Your task to perform on an android device: Go to calendar. Show me events next week Image 0: 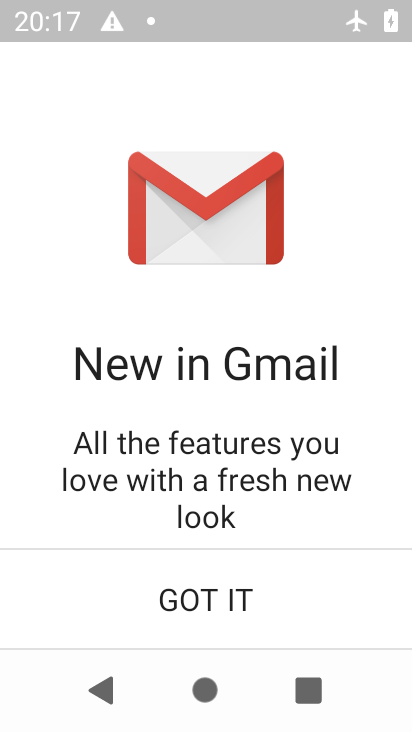
Step 0: press home button
Your task to perform on an android device: Go to calendar. Show me events next week Image 1: 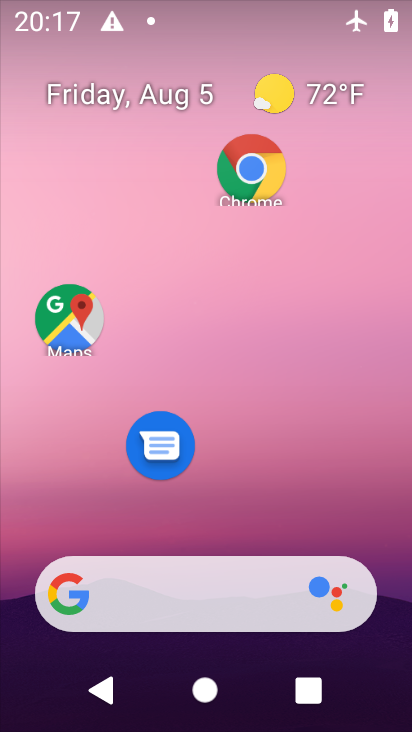
Step 1: drag from (223, 514) to (195, 123)
Your task to perform on an android device: Go to calendar. Show me events next week Image 2: 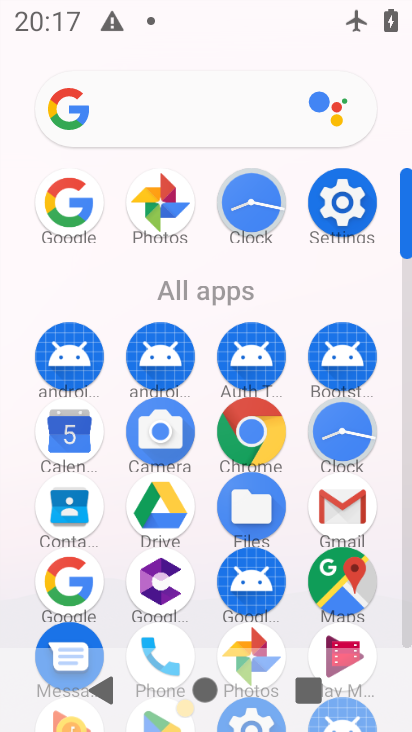
Step 2: click (70, 455)
Your task to perform on an android device: Go to calendar. Show me events next week Image 3: 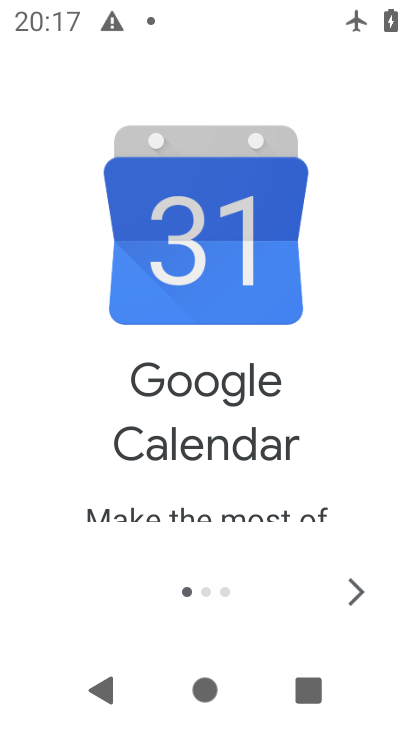
Step 3: click (406, 598)
Your task to perform on an android device: Go to calendar. Show me events next week Image 4: 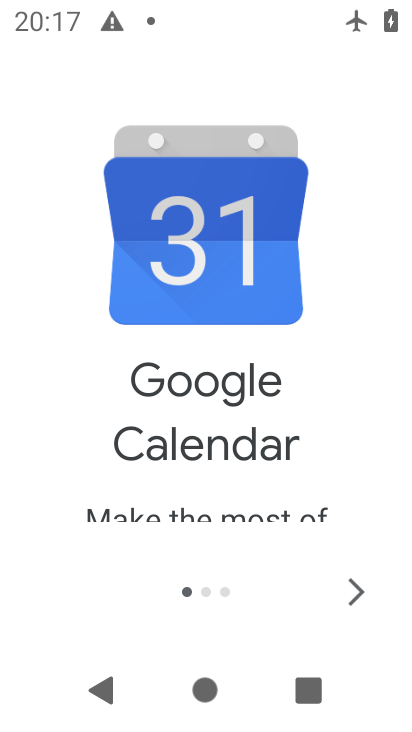
Step 4: click (363, 596)
Your task to perform on an android device: Go to calendar. Show me events next week Image 5: 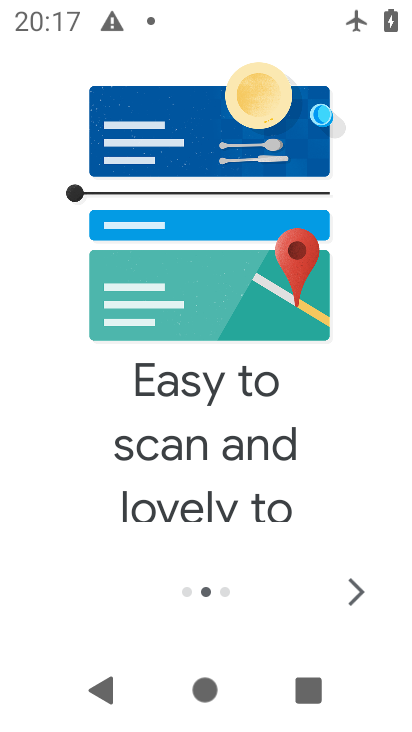
Step 5: click (363, 596)
Your task to perform on an android device: Go to calendar. Show me events next week Image 6: 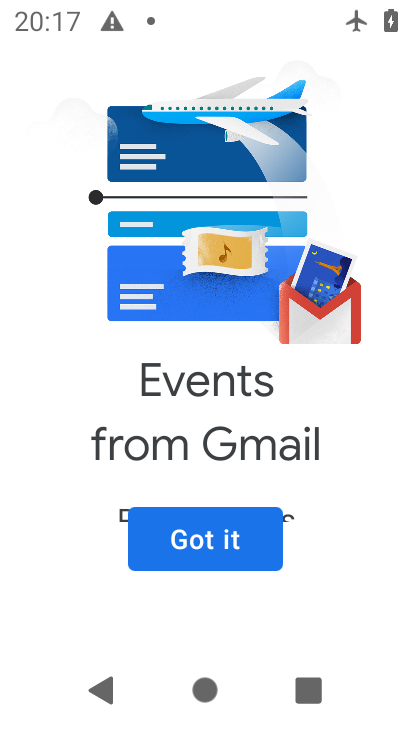
Step 6: click (225, 532)
Your task to perform on an android device: Go to calendar. Show me events next week Image 7: 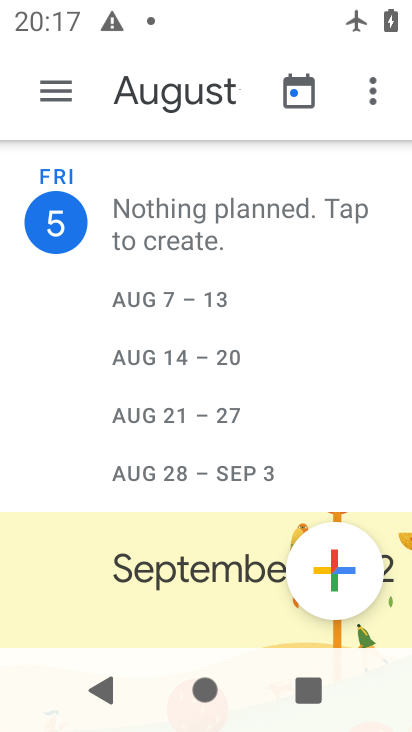
Step 7: click (218, 97)
Your task to perform on an android device: Go to calendar. Show me events next week Image 8: 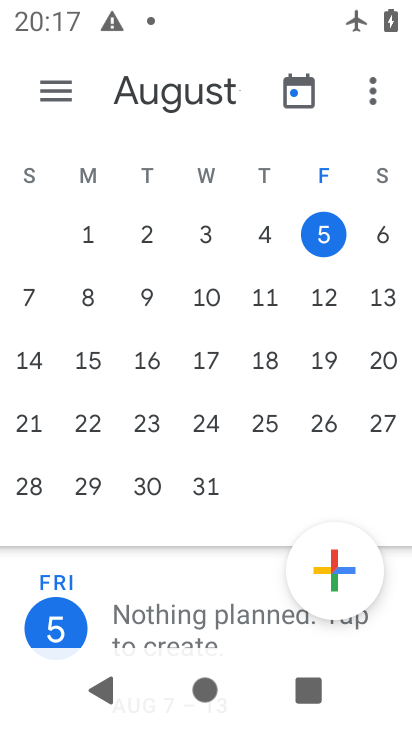
Step 8: drag from (353, 341) to (0, 322)
Your task to perform on an android device: Go to calendar. Show me events next week Image 9: 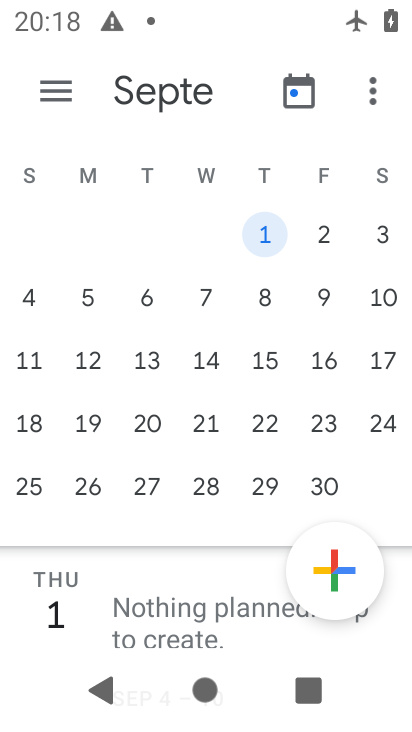
Step 9: drag from (47, 330) to (386, 329)
Your task to perform on an android device: Go to calendar. Show me events next week Image 10: 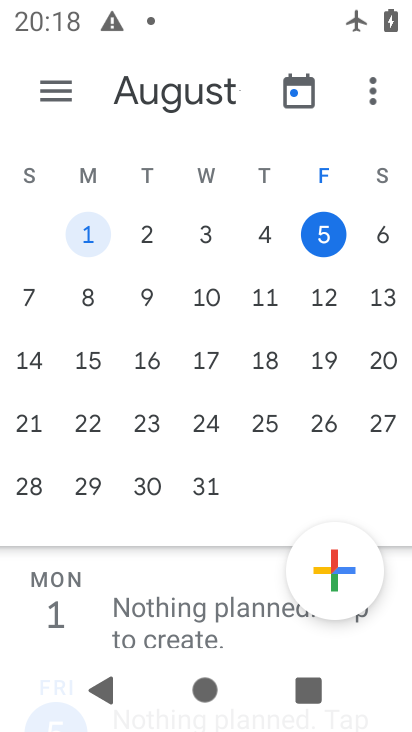
Step 10: click (38, 291)
Your task to perform on an android device: Go to calendar. Show me events next week Image 11: 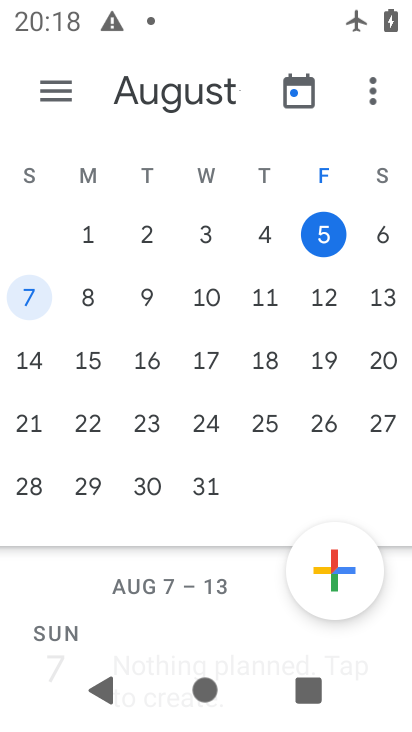
Step 11: task complete